Your task to perform on an android device: What's the weather today? Image 0: 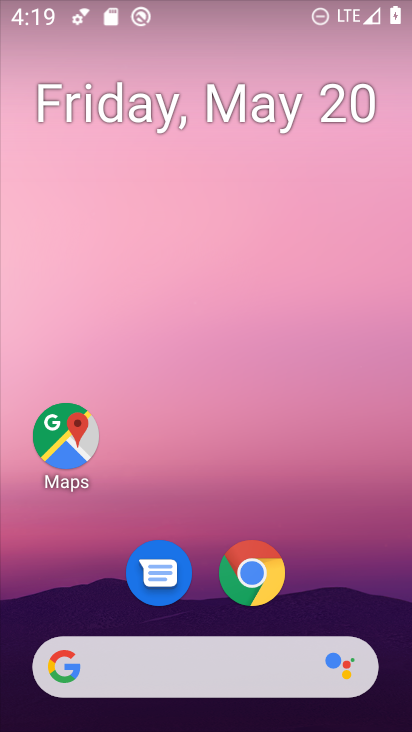
Step 0: drag from (371, 605) to (272, 208)
Your task to perform on an android device: What's the weather today? Image 1: 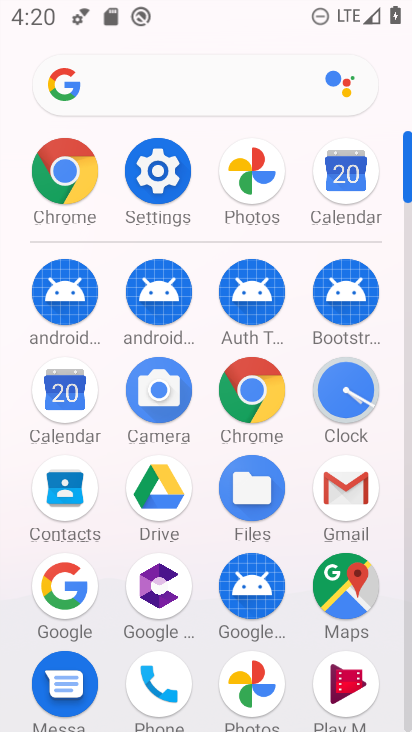
Step 1: click (75, 166)
Your task to perform on an android device: What's the weather today? Image 2: 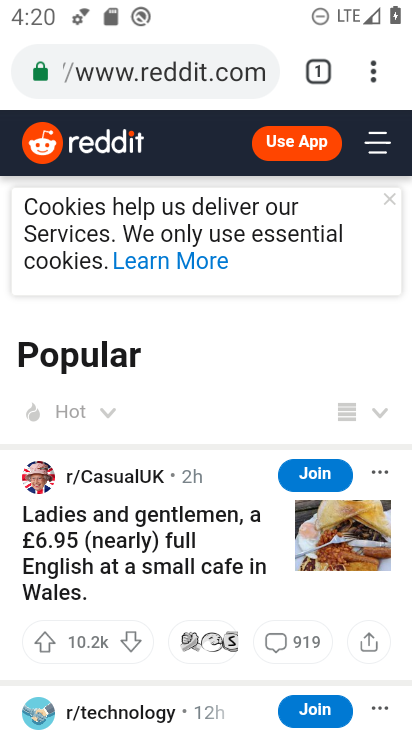
Step 2: click (171, 79)
Your task to perform on an android device: What's the weather today? Image 3: 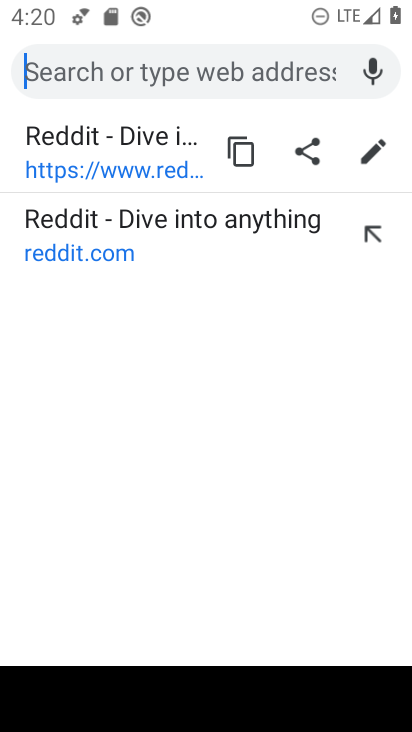
Step 3: type "What's the weather today?"
Your task to perform on an android device: What's the weather today? Image 4: 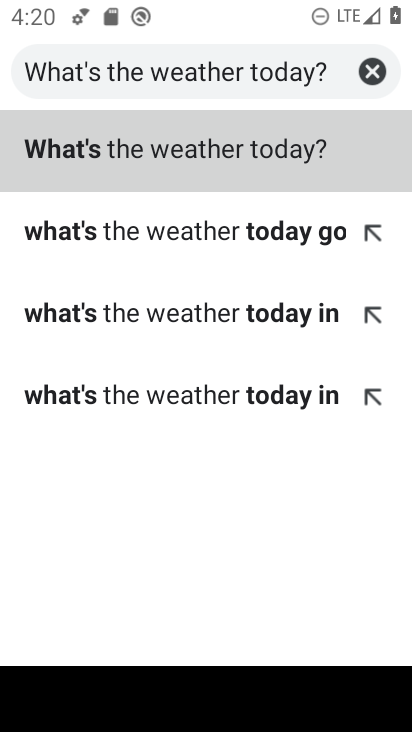
Step 4: click (291, 167)
Your task to perform on an android device: What's the weather today? Image 5: 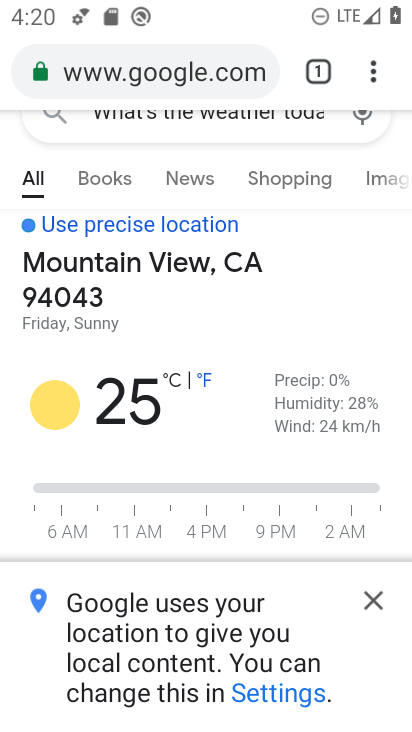
Step 5: click (381, 604)
Your task to perform on an android device: What's the weather today? Image 6: 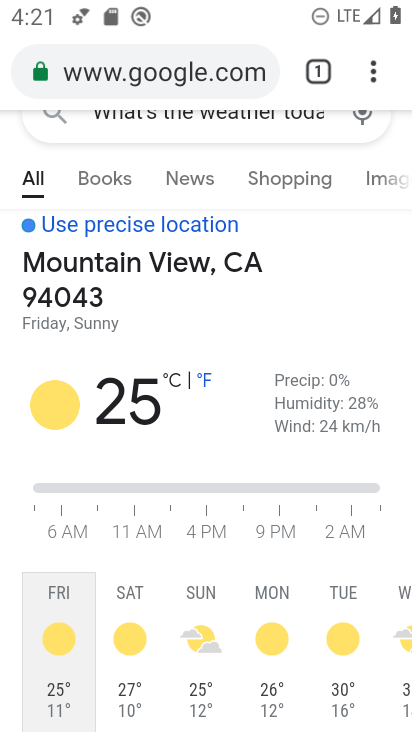
Step 6: task complete